Your task to perform on an android device: Search for pizza restaurants on Maps Image 0: 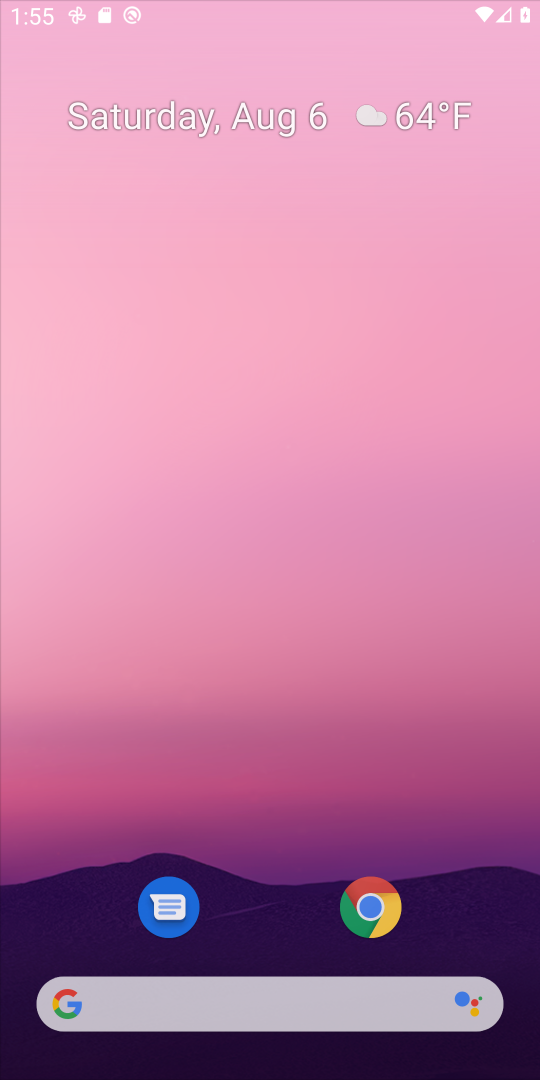
Step 0: press home button
Your task to perform on an android device: Search for pizza restaurants on Maps Image 1: 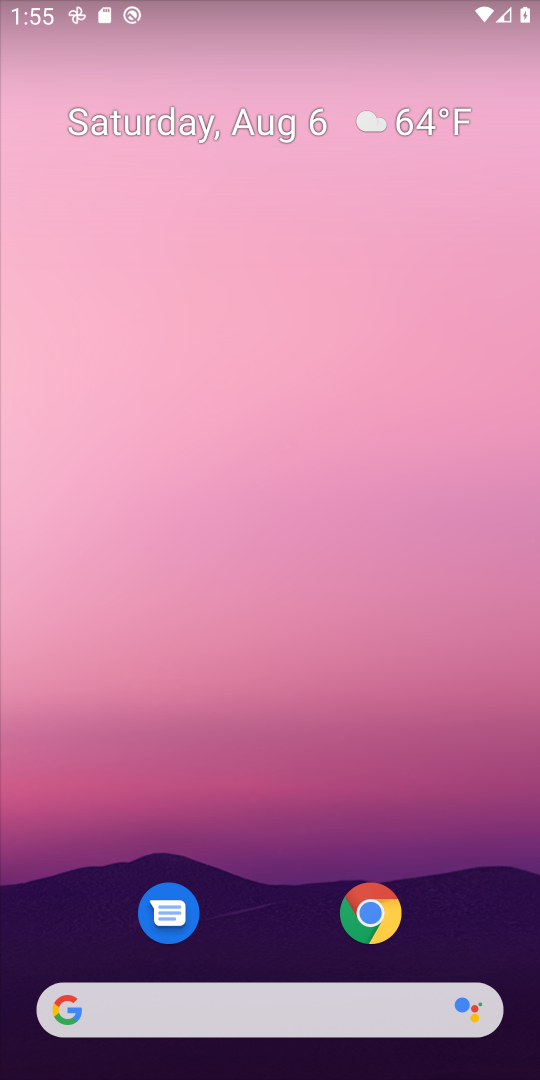
Step 1: drag from (460, 914) to (489, 279)
Your task to perform on an android device: Search for pizza restaurants on Maps Image 2: 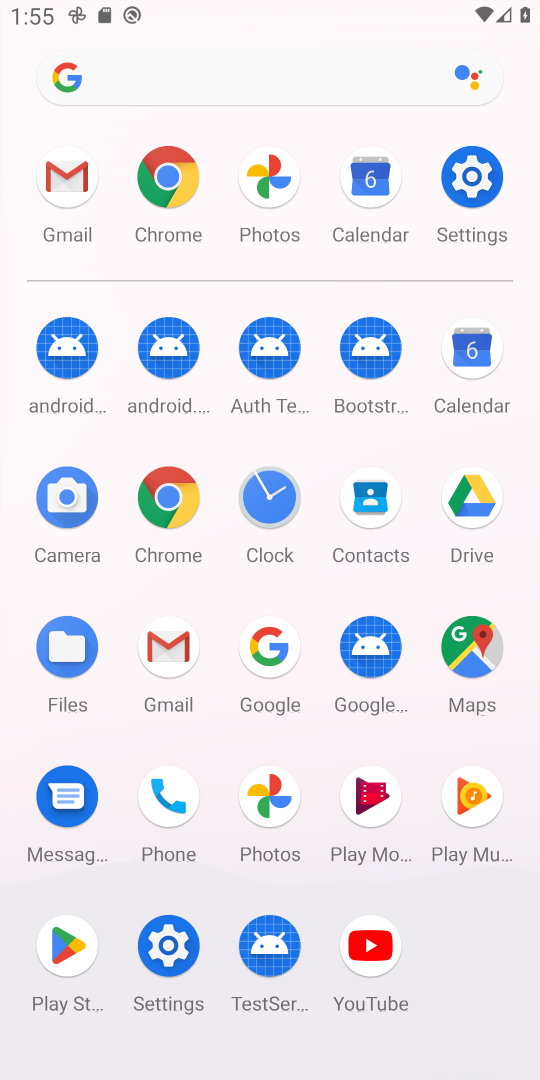
Step 2: click (467, 659)
Your task to perform on an android device: Search for pizza restaurants on Maps Image 3: 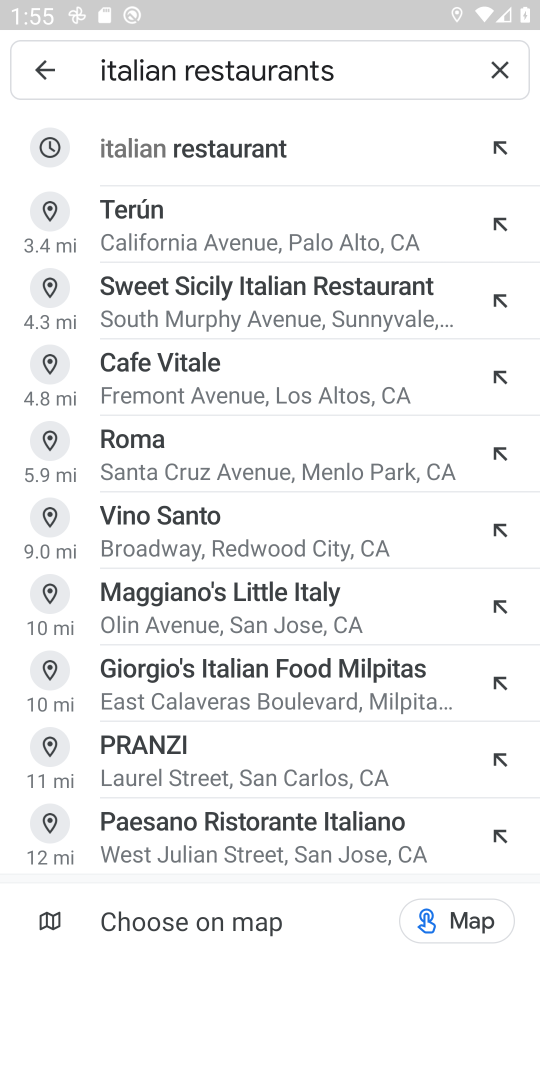
Step 3: click (495, 55)
Your task to perform on an android device: Search for pizza restaurants on Maps Image 4: 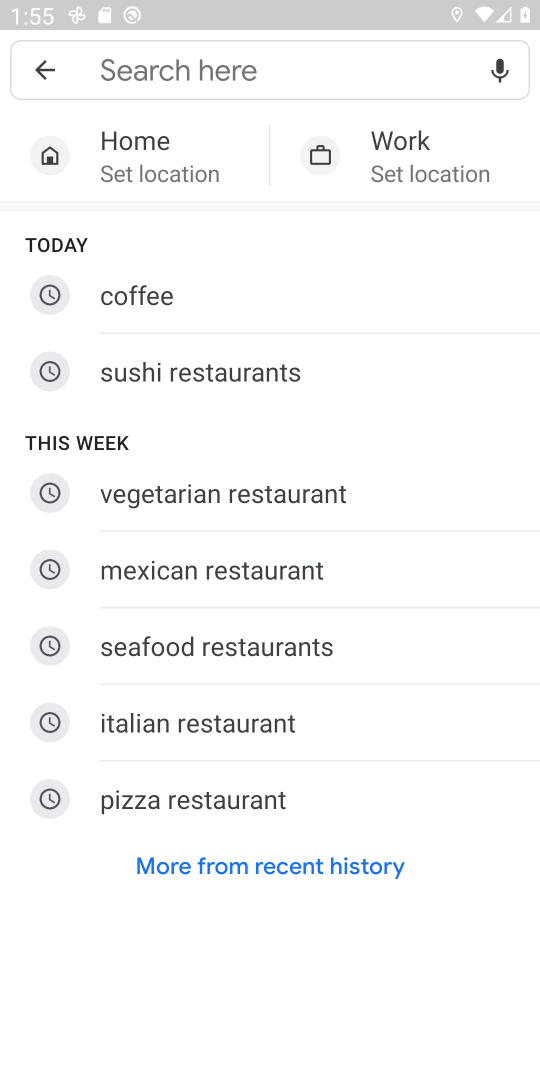
Step 4: click (355, 82)
Your task to perform on an android device: Search for pizza restaurants on Maps Image 5: 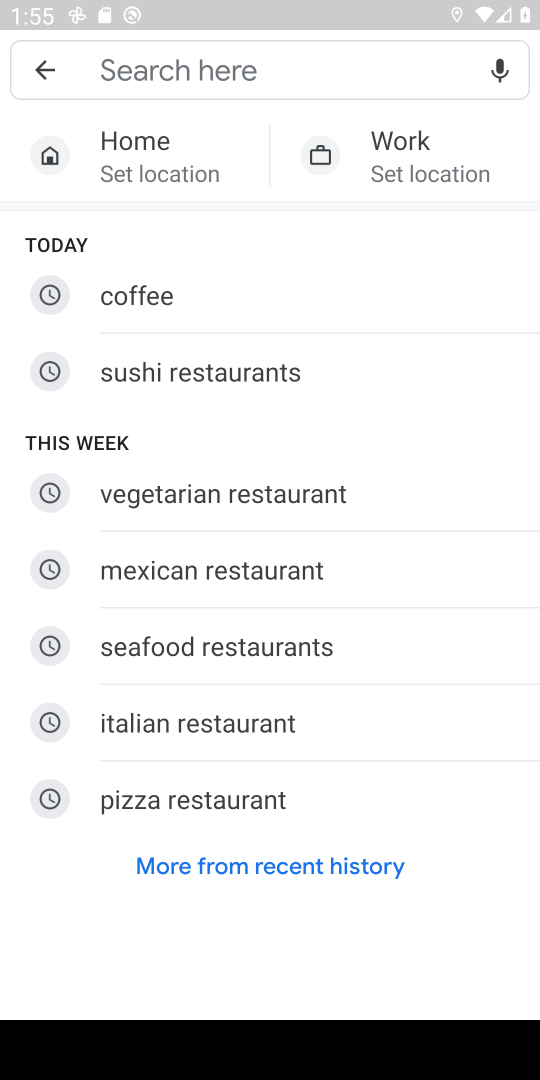
Step 5: type "pizza restaurants"
Your task to perform on an android device: Search for pizza restaurants on Maps Image 6: 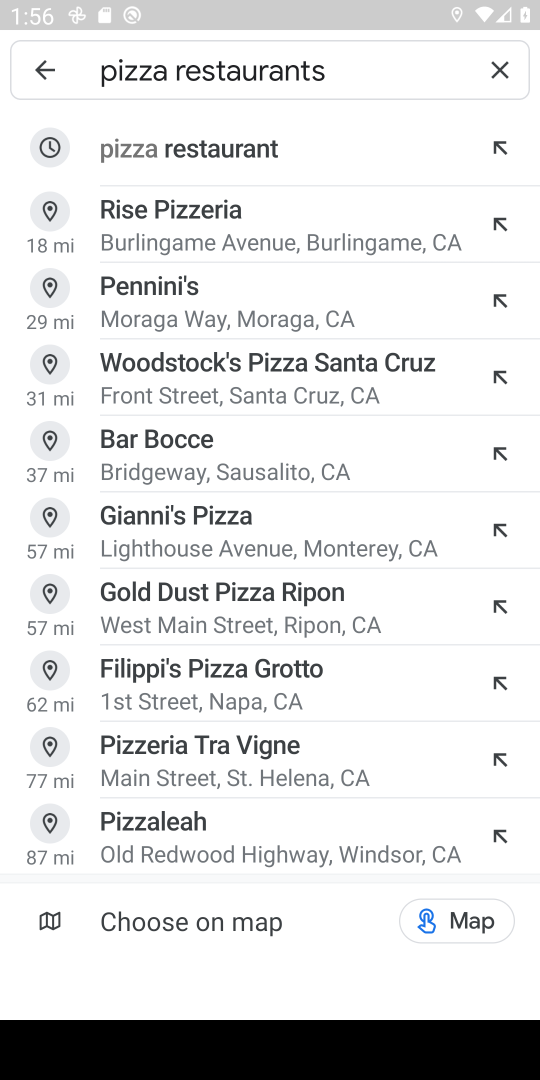
Step 6: click (350, 152)
Your task to perform on an android device: Search for pizza restaurants on Maps Image 7: 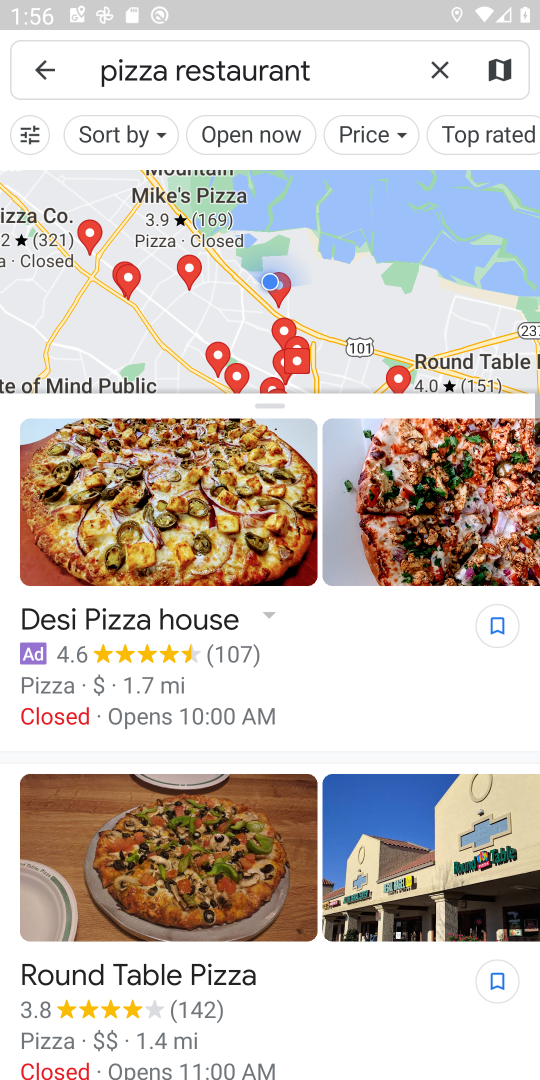
Step 7: task complete